Your task to perform on an android device: What is the recent news? Image 0: 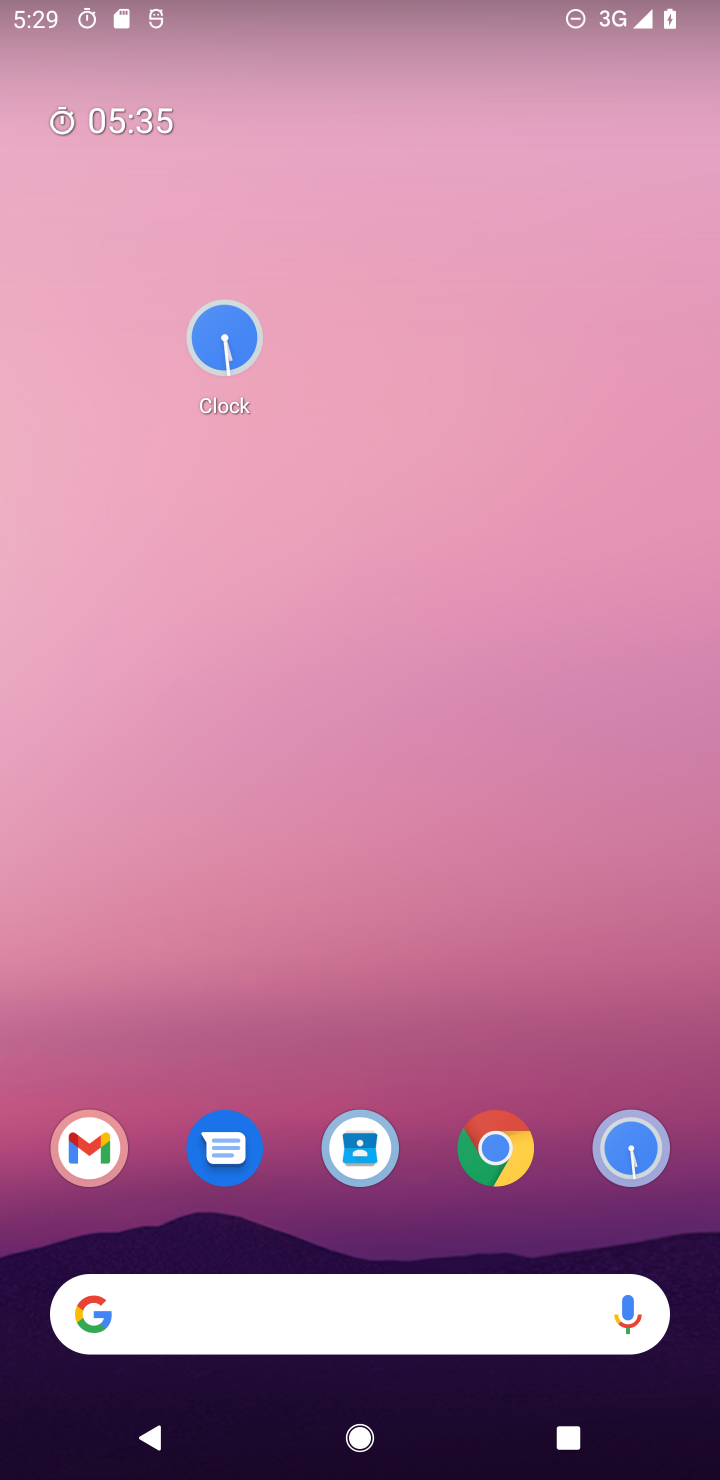
Step 0: drag from (391, 821) to (391, 418)
Your task to perform on an android device: What is the recent news? Image 1: 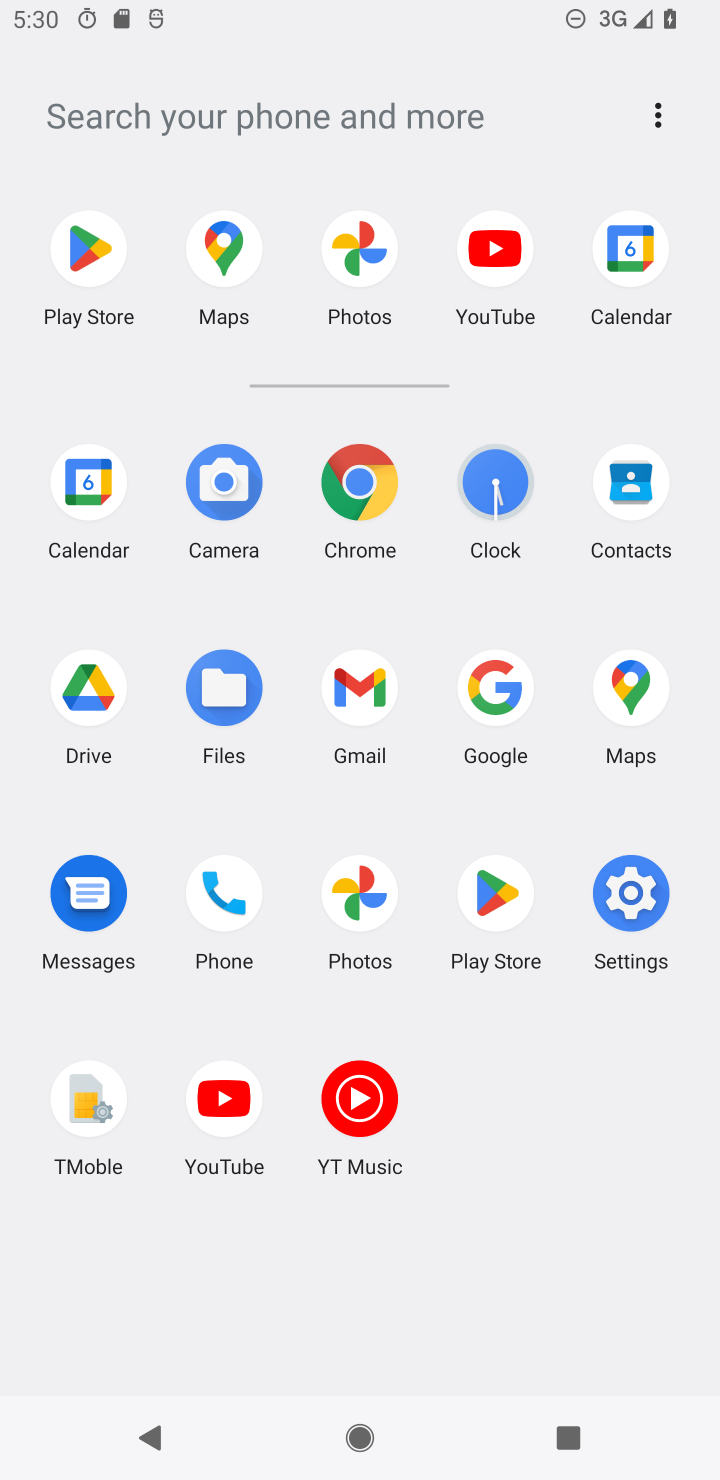
Step 1: click (378, 470)
Your task to perform on an android device: What is the recent news? Image 2: 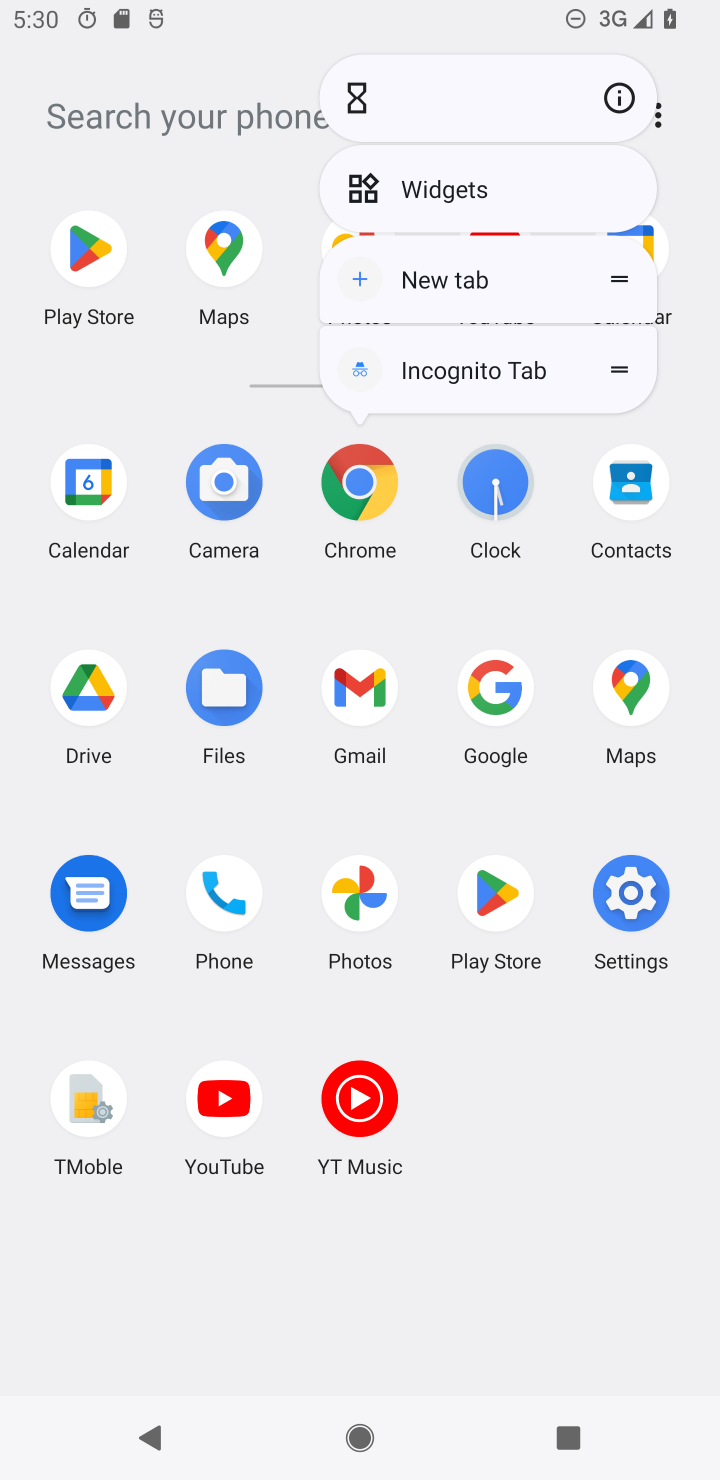
Step 2: click (595, 84)
Your task to perform on an android device: What is the recent news? Image 3: 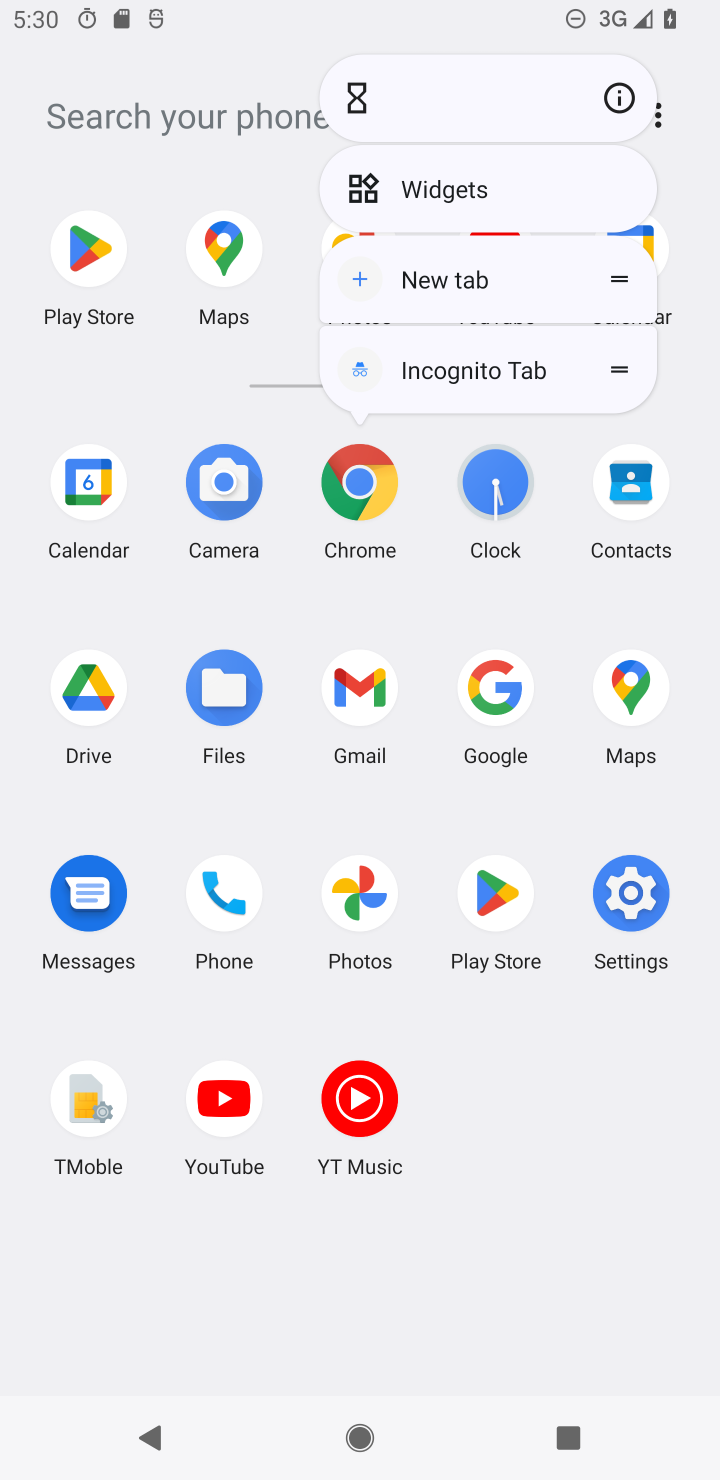
Step 3: click (622, 92)
Your task to perform on an android device: What is the recent news? Image 4: 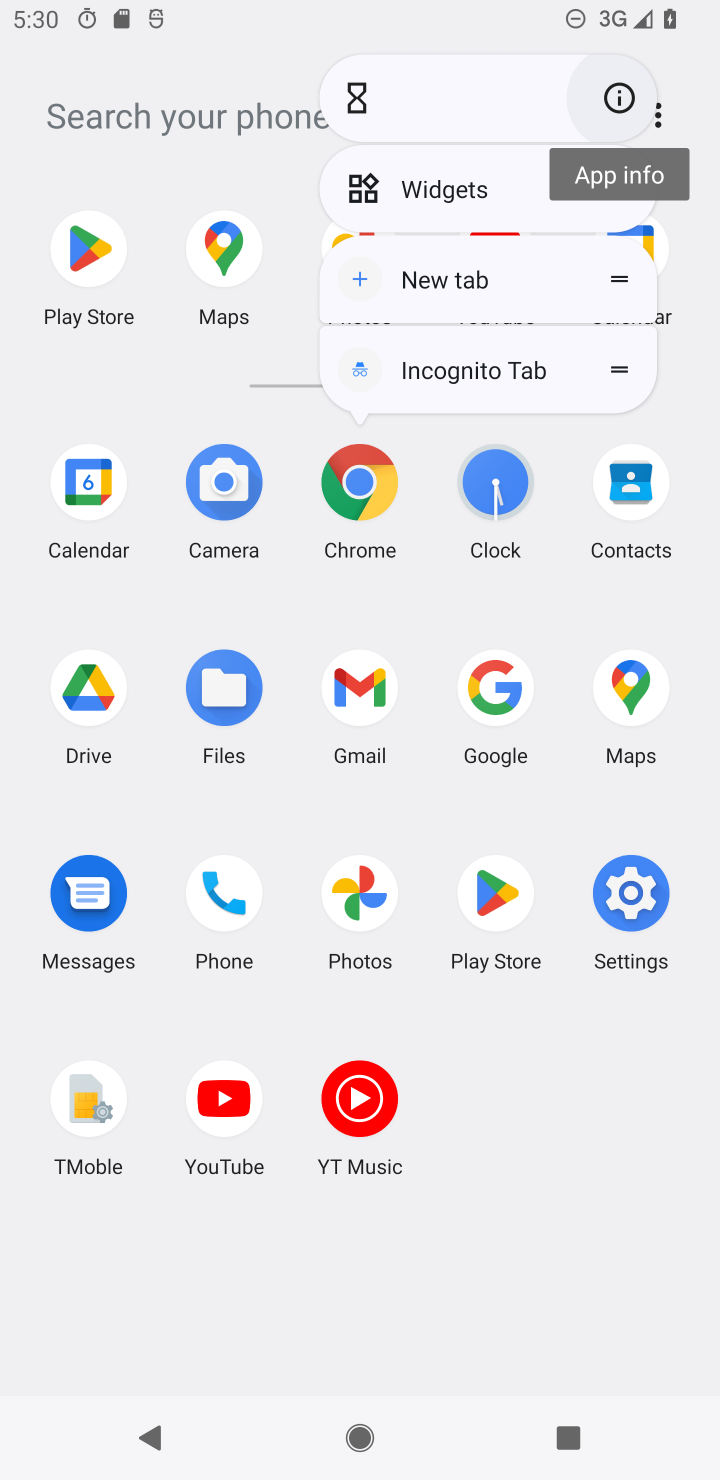
Step 4: click (628, 84)
Your task to perform on an android device: What is the recent news? Image 5: 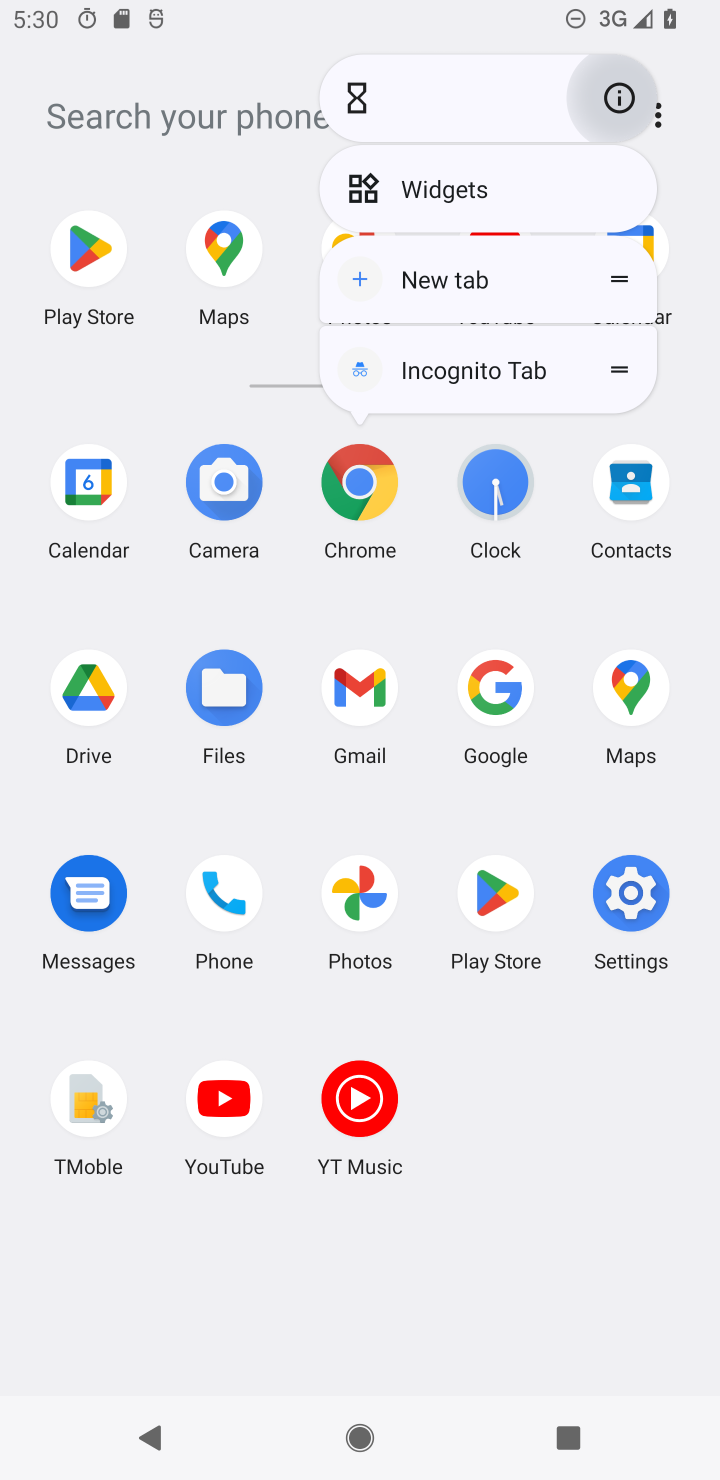
Step 5: click (628, 84)
Your task to perform on an android device: What is the recent news? Image 6: 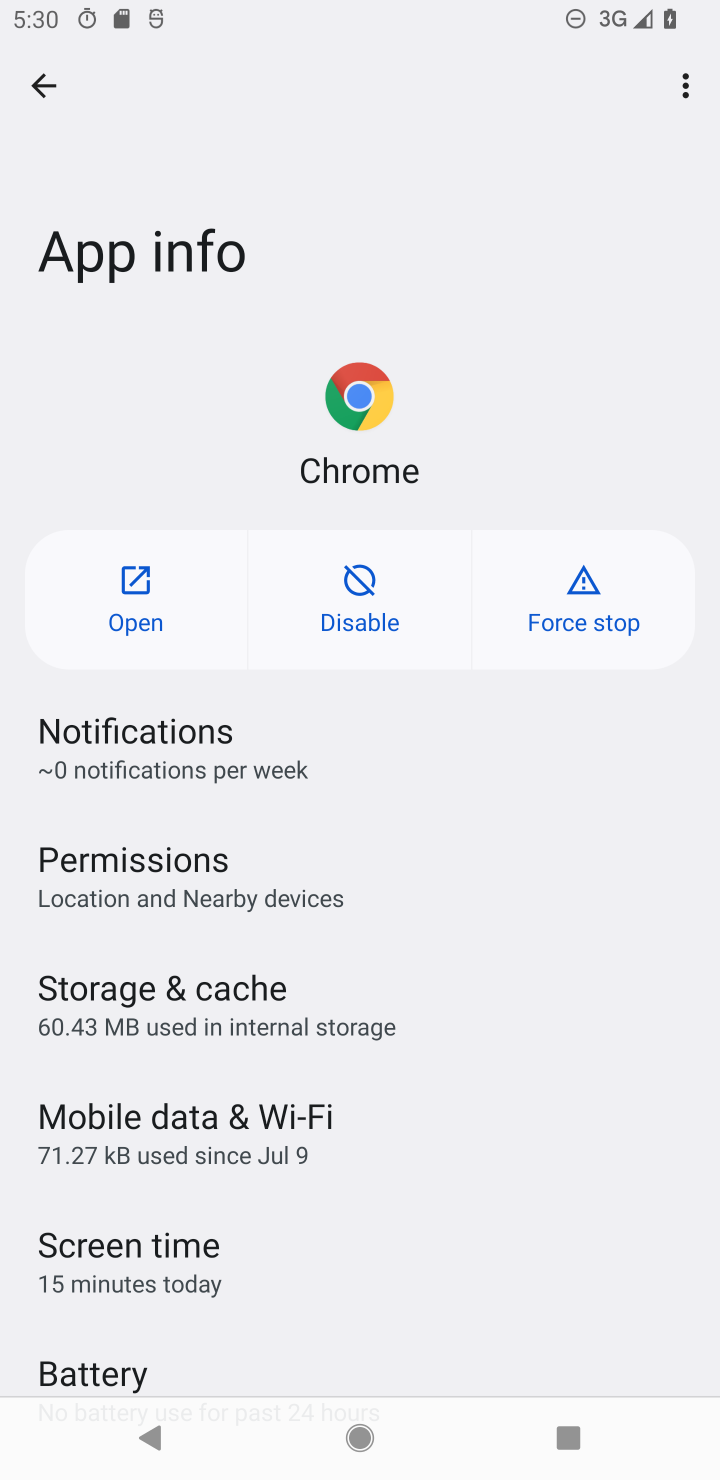
Step 6: click (111, 596)
Your task to perform on an android device: What is the recent news? Image 7: 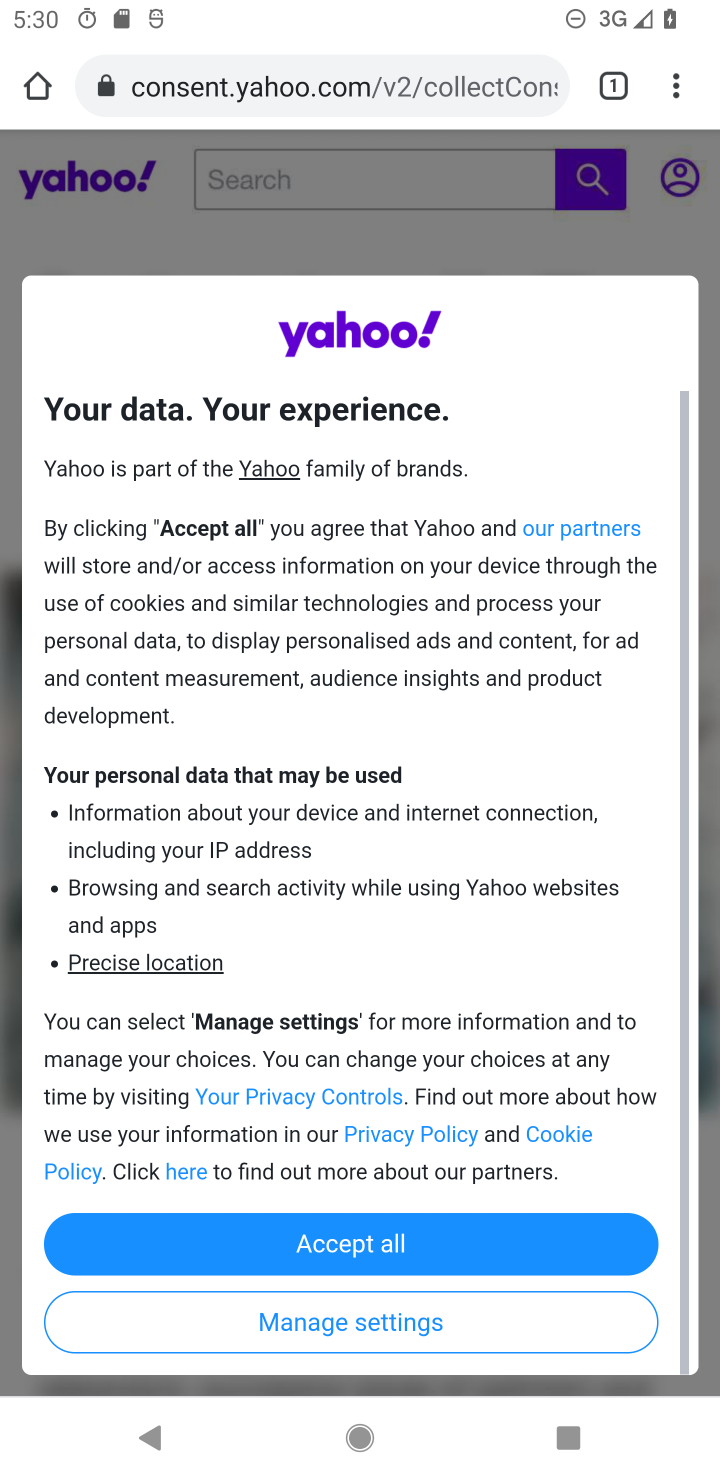
Step 7: click (223, 76)
Your task to perform on an android device: What is the recent news? Image 8: 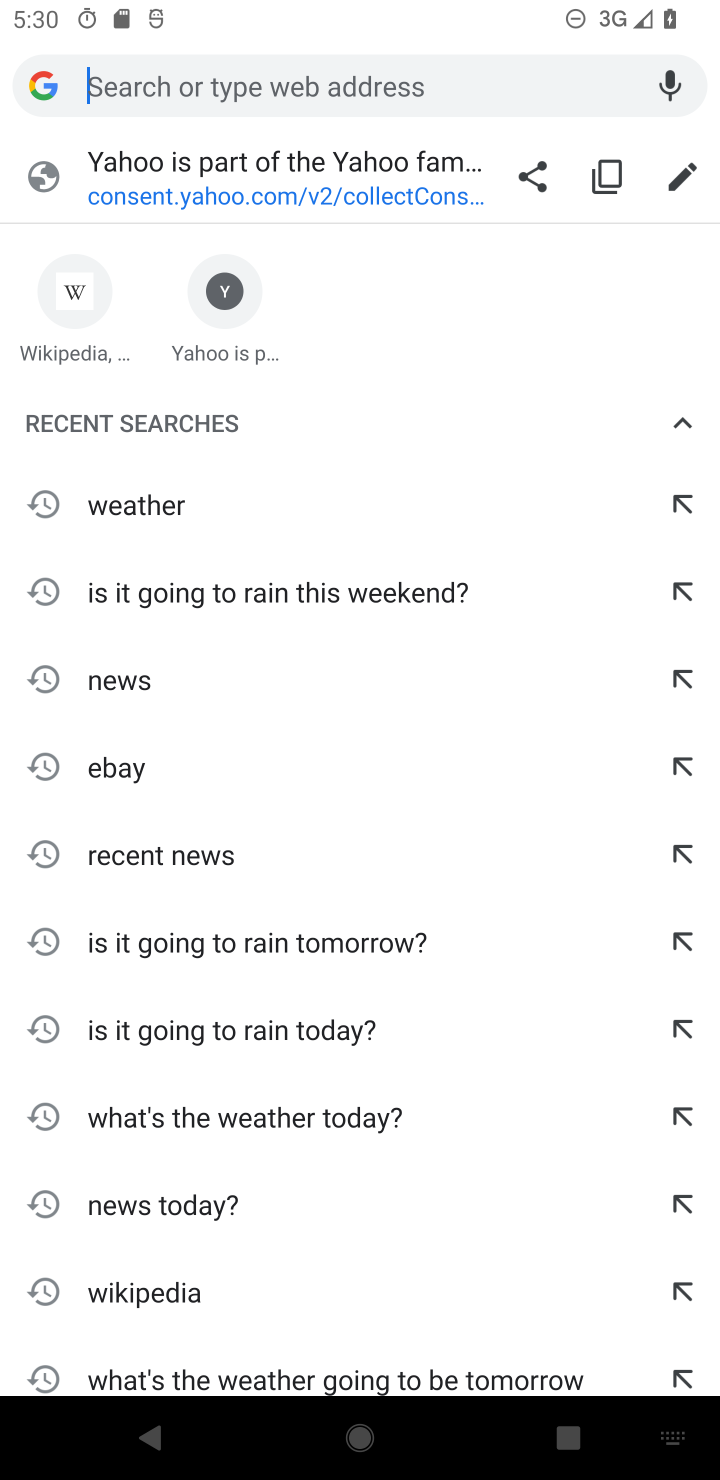
Step 8: type "recent news"
Your task to perform on an android device: What is the recent news? Image 9: 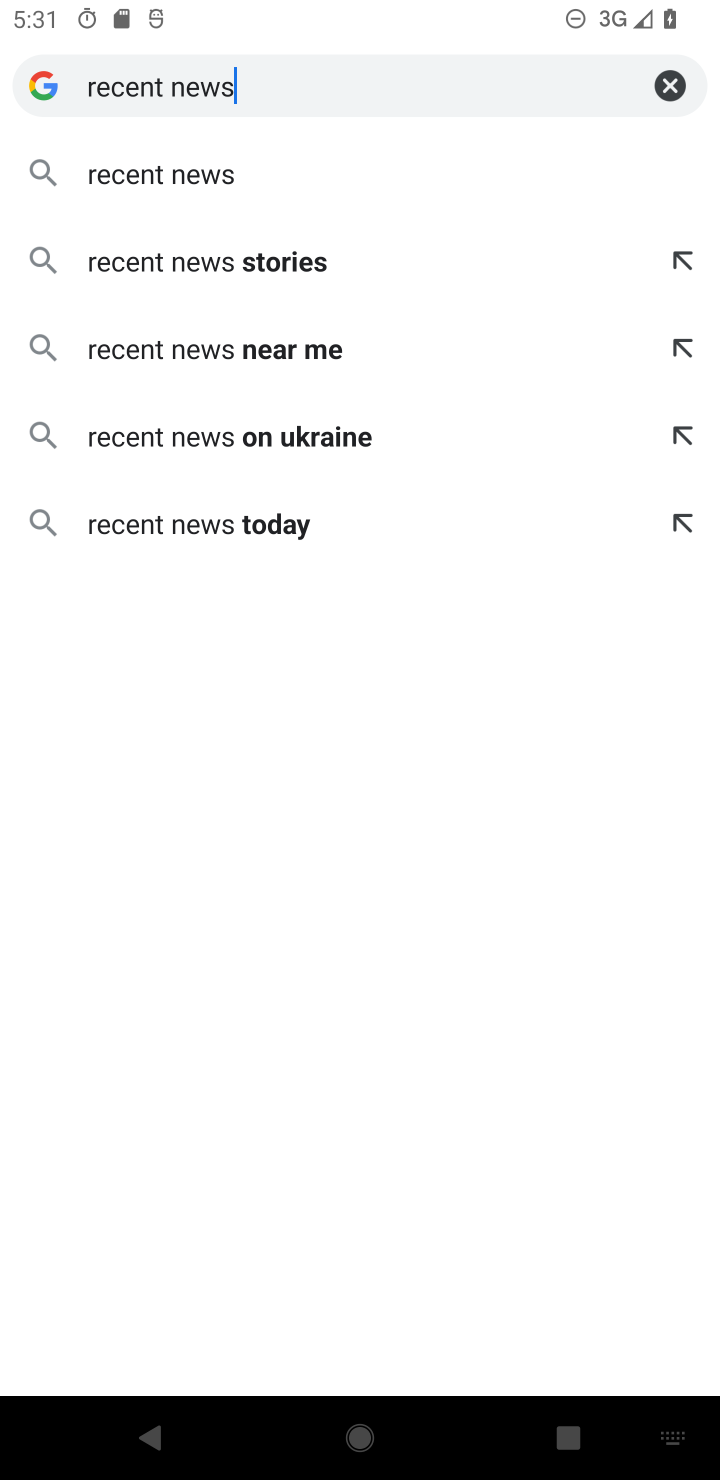
Step 9: click (200, 197)
Your task to perform on an android device: What is the recent news? Image 10: 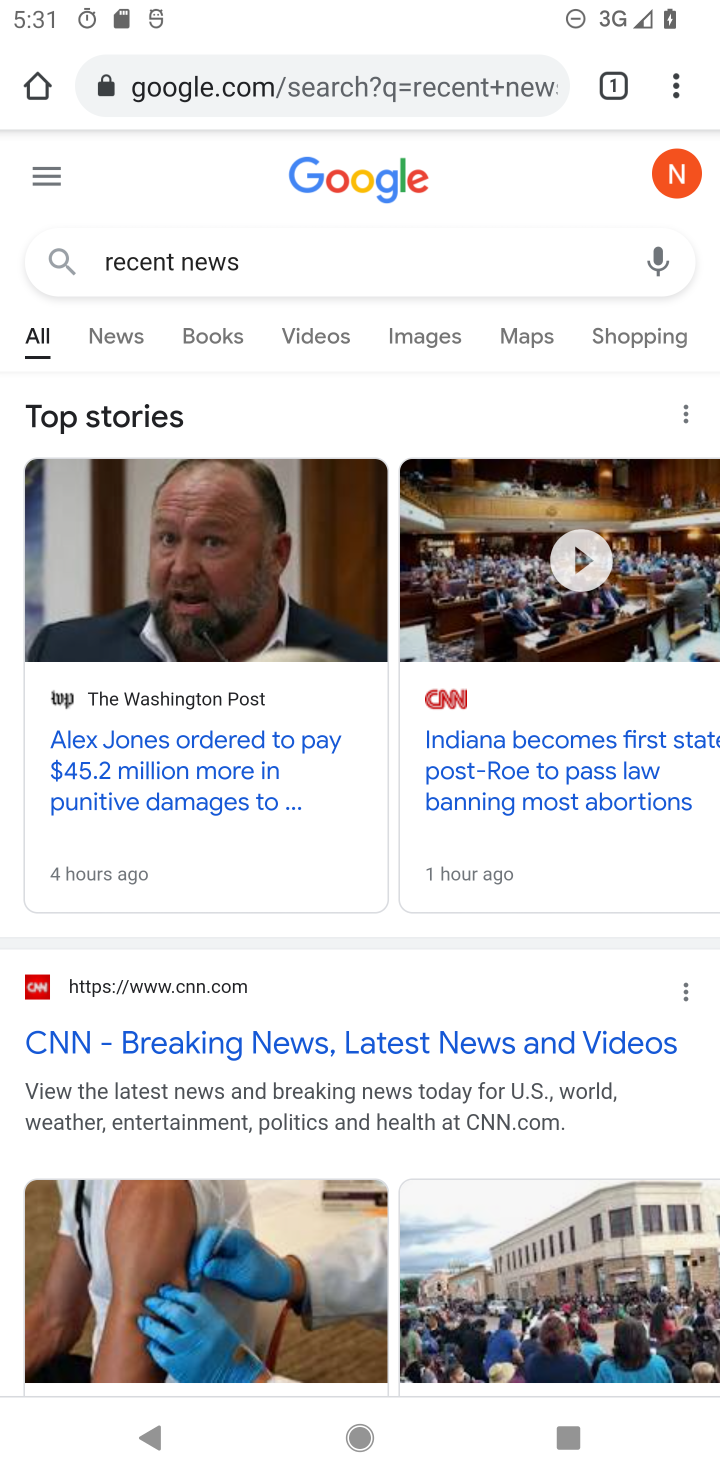
Step 10: drag from (379, 616) to (435, 393)
Your task to perform on an android device: What is the recent news? Image 11: 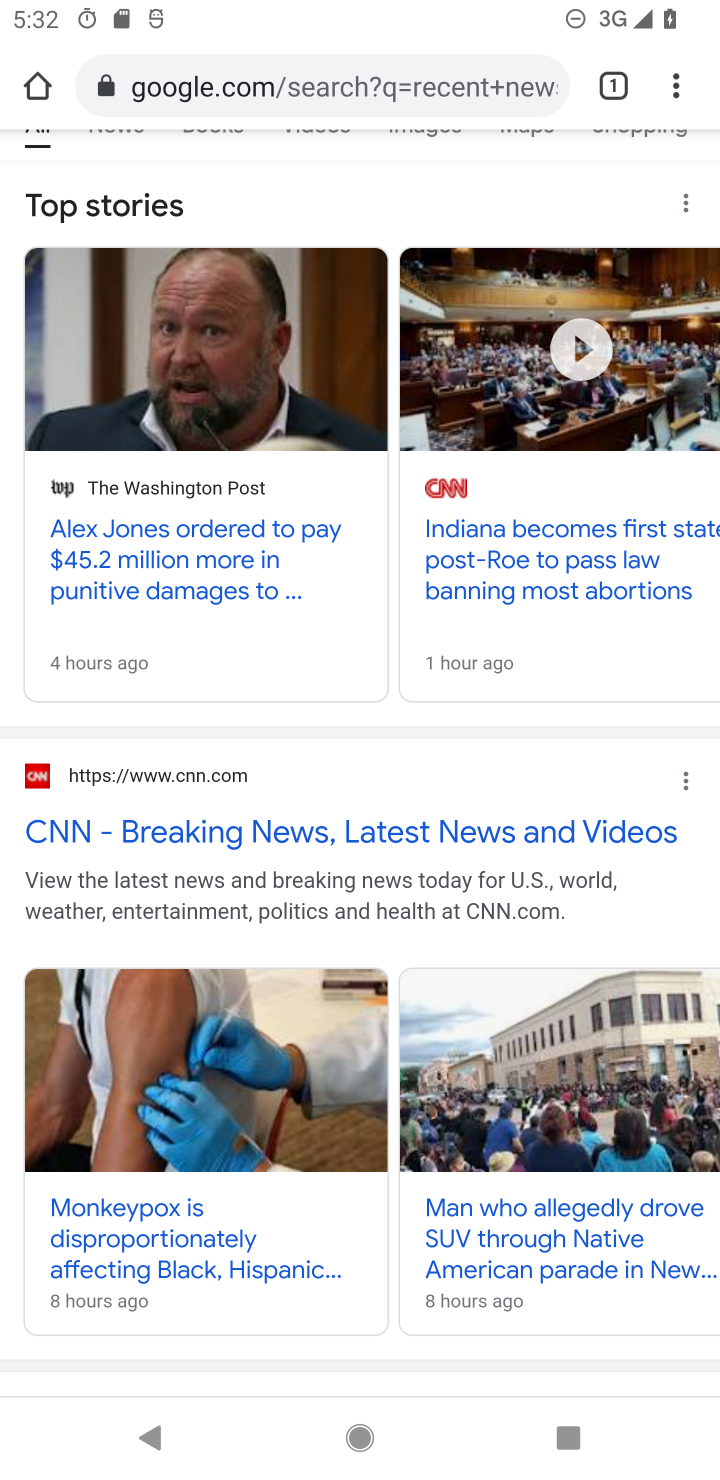
Step 11: click (719, 1036)
Your task to perform on an android device: What is the recent news? Image 12: 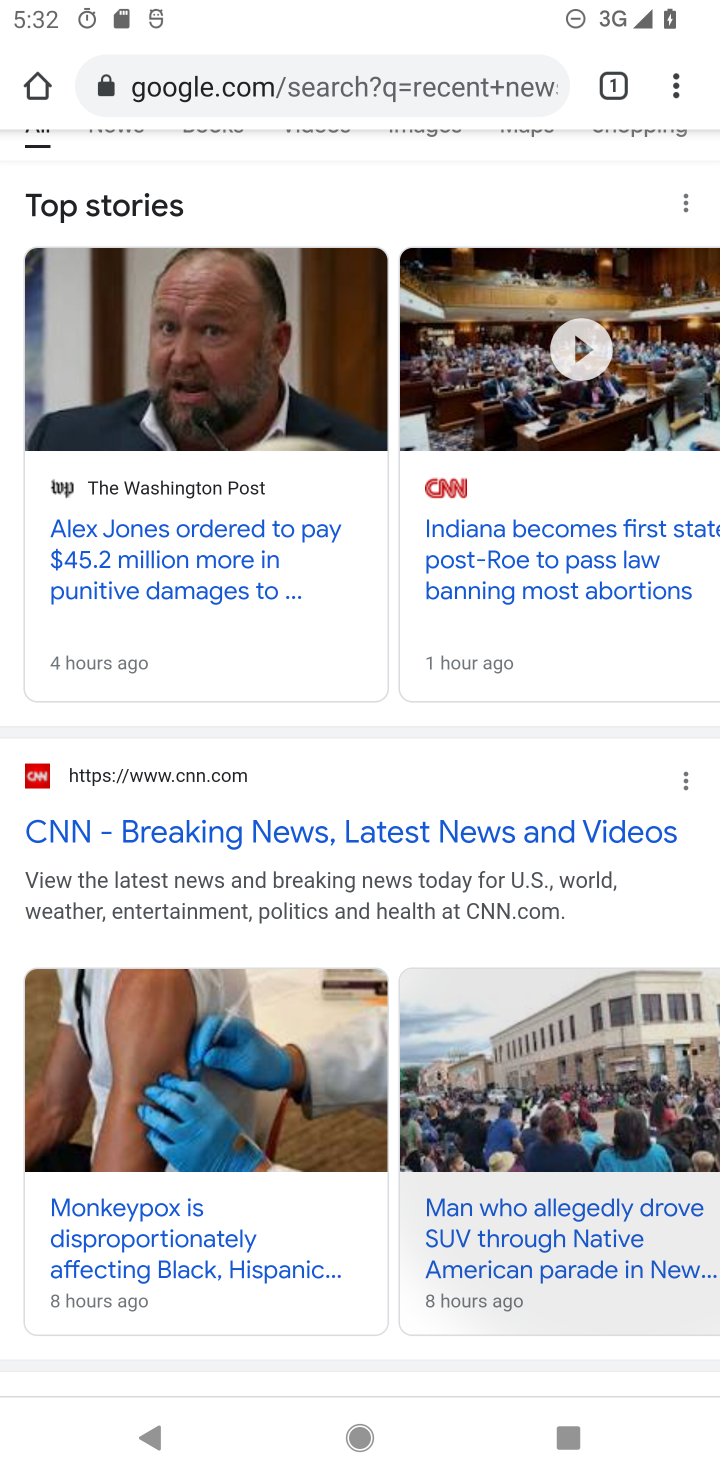
Step 12: task complete